Your task to perform on an android device: Go to settings Image 0: 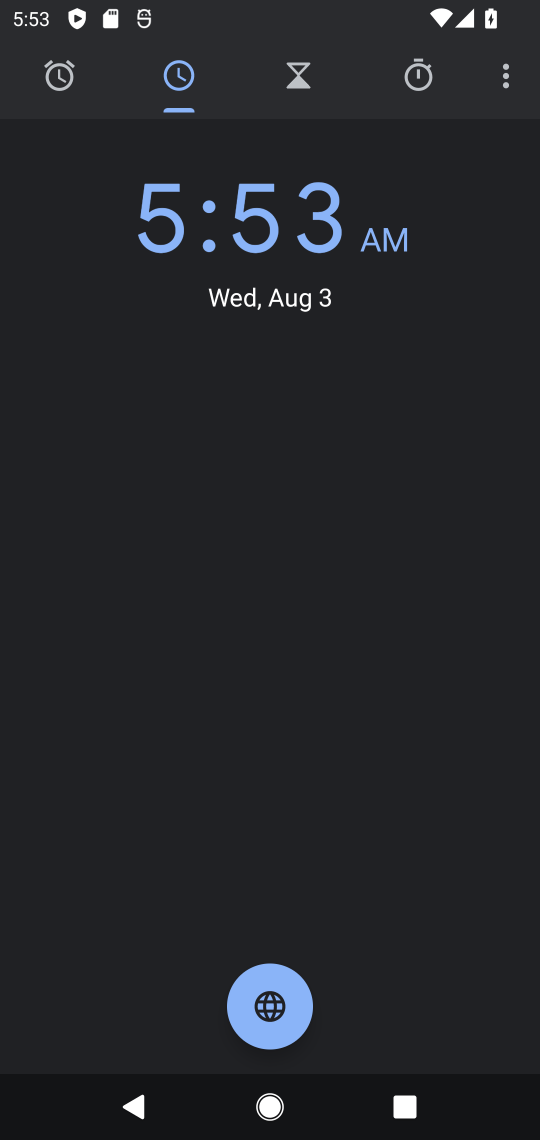
Step 0: press home button
Your task to perform on an android device: Go to settings Image 1: 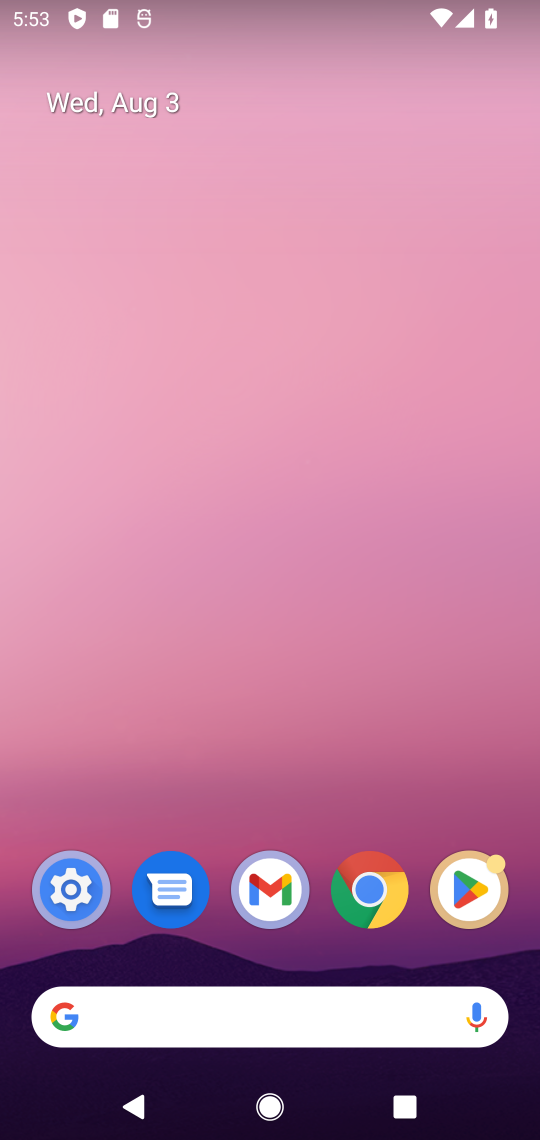
Step 1: drag from (379, 792) to (405, 0)
Your task to perform on an android device: Go to settings Image 2: 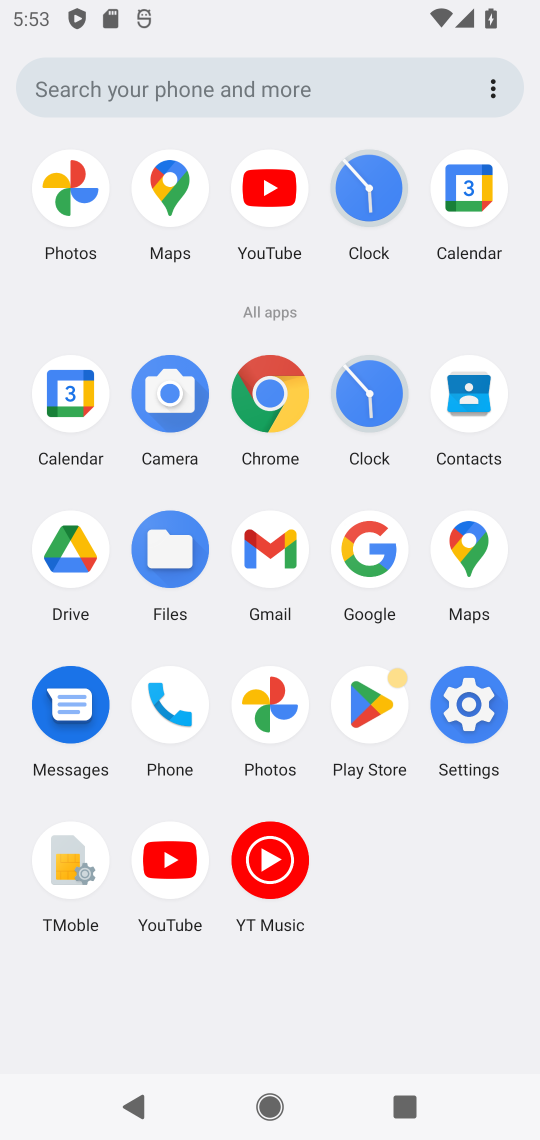
Step 2: click (465, 696)
Your task to perform on an android device: Go to settings Image 3: 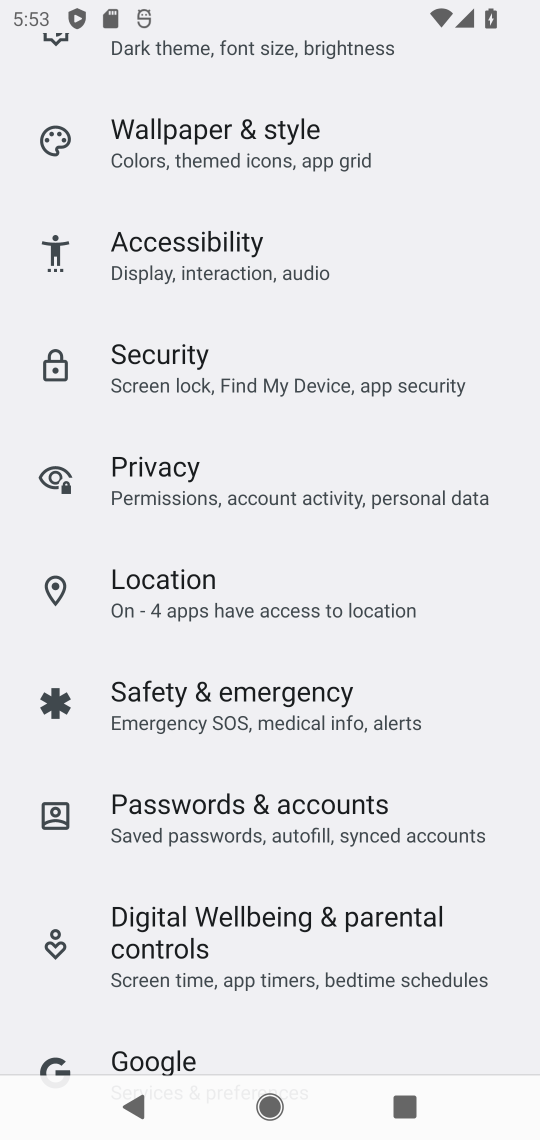
Step 3: task complete